Your task to perform on an android device: Add "acer nitro" to the cart on costco.com Image 0: 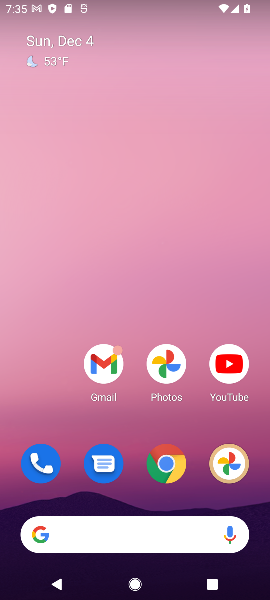
Step 0: click (138, 545)
Your task to perform on an android device: Add "acer nitro" to the cart on costco.com Image 1: 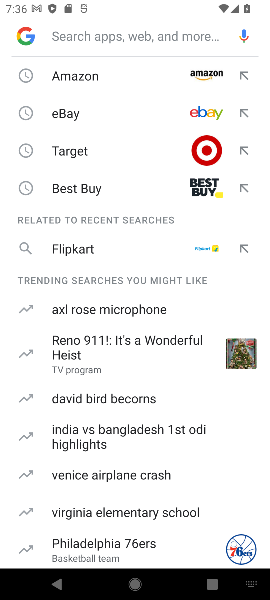
Step 1: type "costco.com"
Your task to perform on an android device: Add "acer nitro" to the cart on costco.com Image 2: 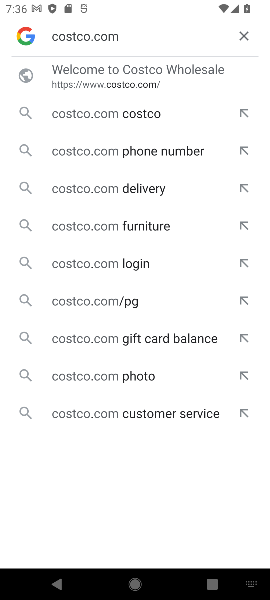
Step 2: click (97, 67)
Your task to perform on an android device: Add "acer nitro" to the cart on costco.com Image 3: 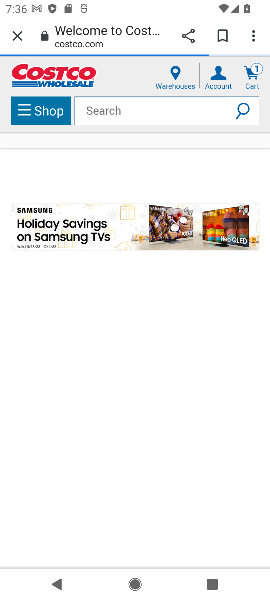
Step 3: click (119, 108)
Your task to perform on an android device: Add "acer nitro" to the cart on costco.com Image 4: 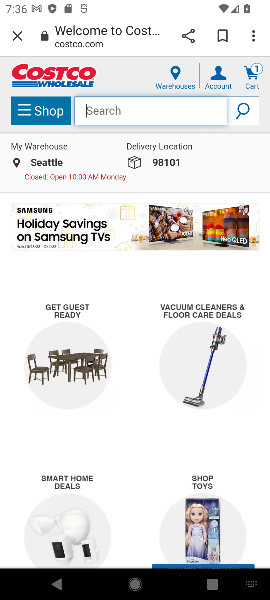
Step 4: type "acer nitro"
Your task to perform on an android device: Add "acer nitro" to the cart on costco.com Image 5: 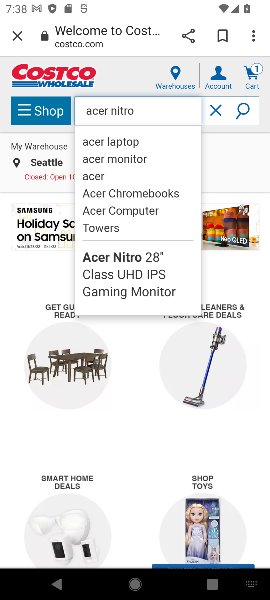
Step 5: click (239, 110)
Your task to perform on an android device: Add "acer nitro" to the cart on costco.com Image 6: 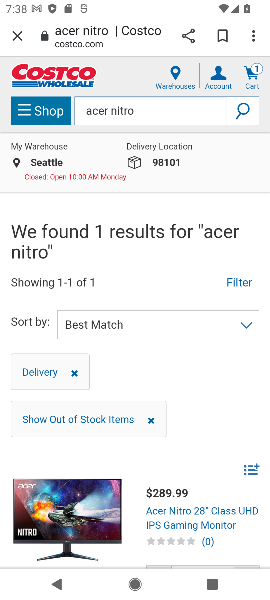
Step 6: task complete